Your task to perform on an android device: set an alarm Image 0: 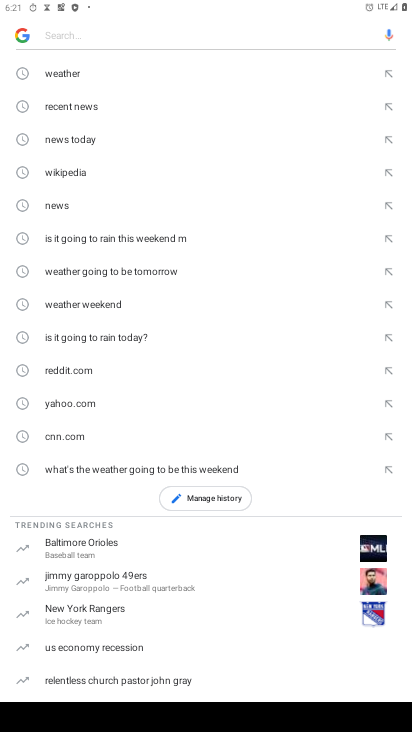
Step 0: press home button
Your task to perform on an android device: set an alarm Image 1: 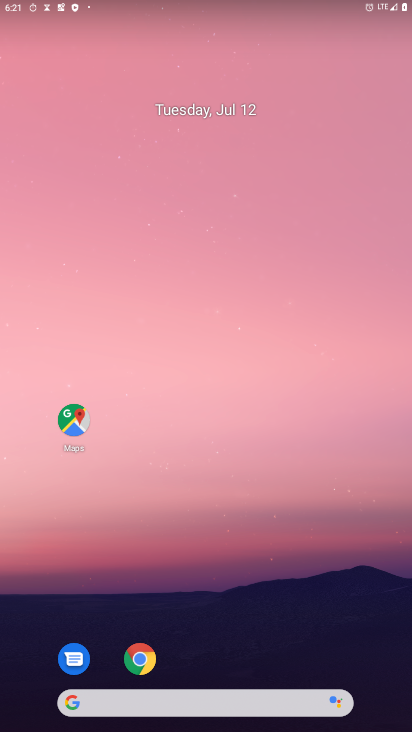
Step 1: drag from (162, 629) to (141, 334)
Your task to perform on an android device: set an alarm Image 2: 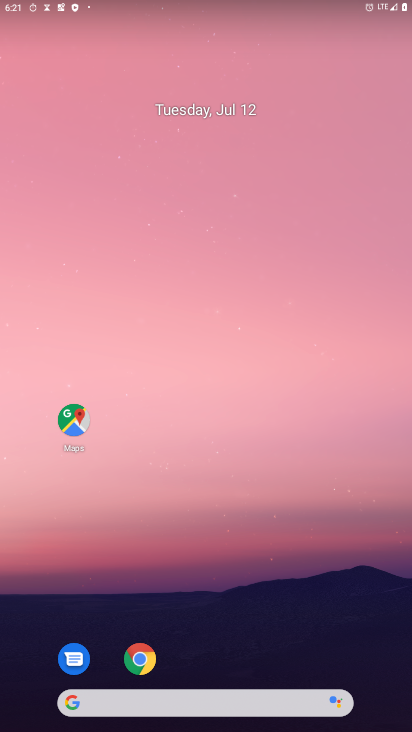
Step 2: drag from (181, 532) to (180, 66)
Your task to perform on an android device: set an alarm Image 3: 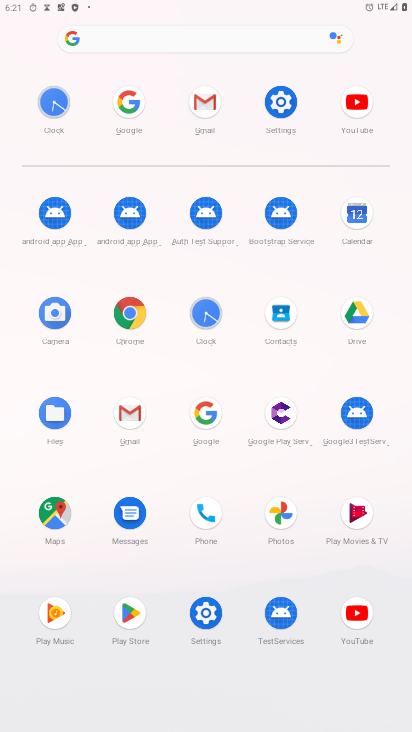
Step 3: click (285, 110)
Your task to perform on an android device: set an alarm Image 4: 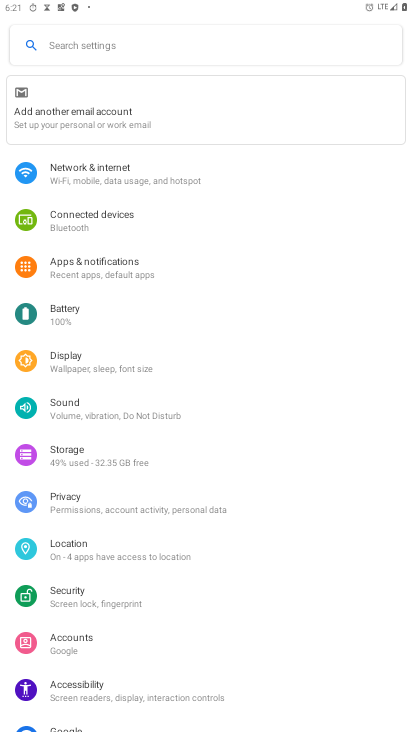
Step 4: press back button
Your task to perform on an android device: set an alarm Image 5: 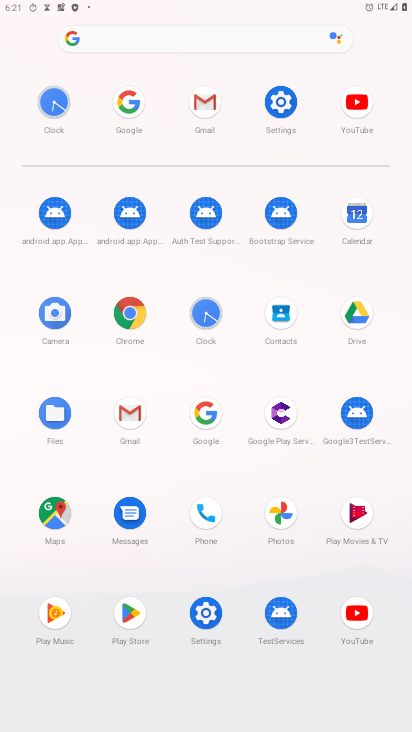
Step 5: click (196, 333)
Your task to perform on an android device: set an alarm Image 6: 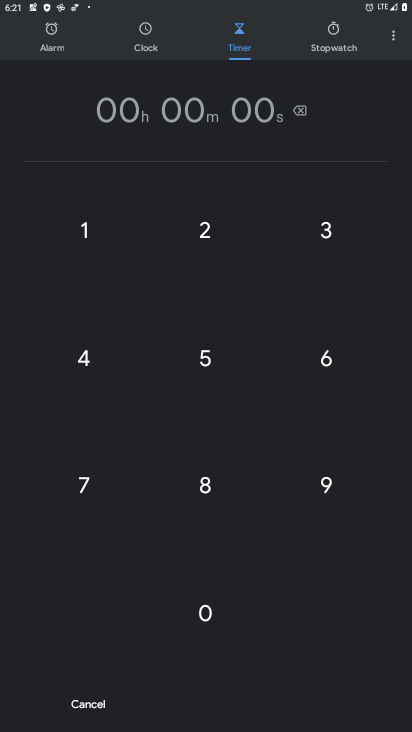
Step 6: click (44, 43)
Your task to perform on an android device: set an alarm Image 7: 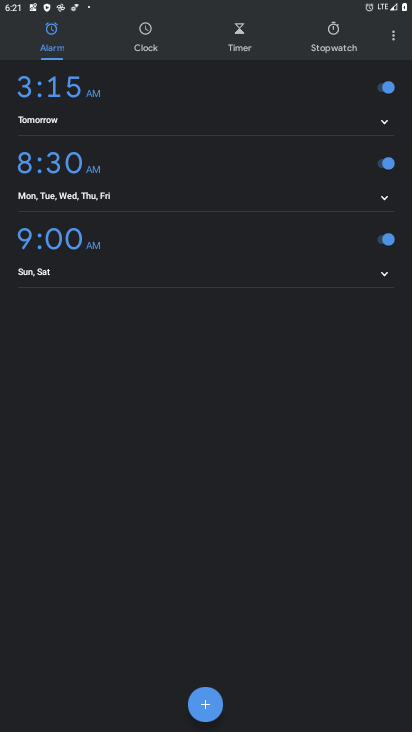
Step 7: click (200, 713)
Your task to perform on an android device: set an alarm Image 8: 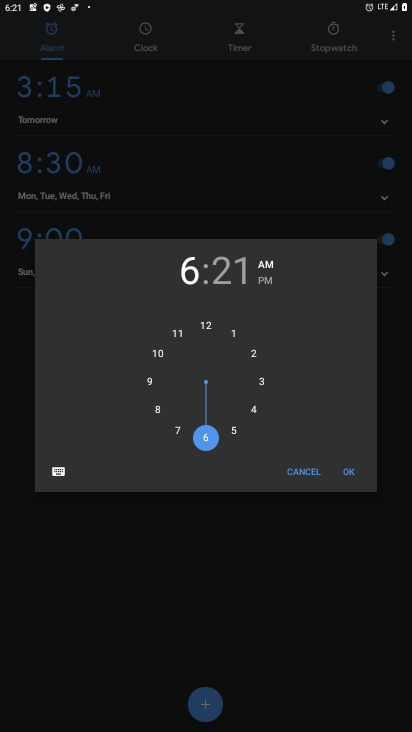
Step 8: click (206, 332)
Your task to perform on an android device: set an alarm Image 9: 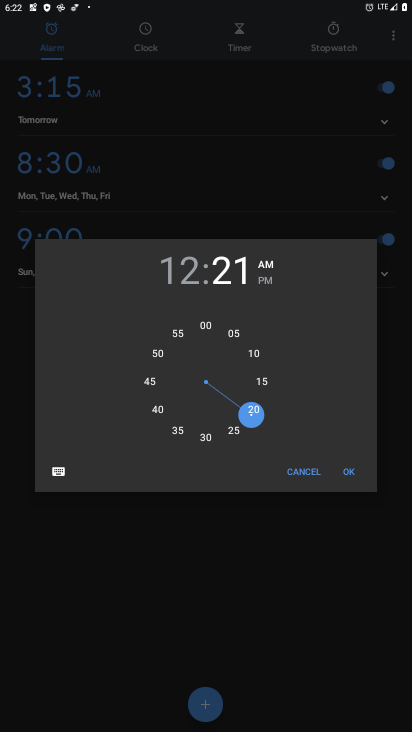
Step 9: click (277, 283)
Your task to perform on an android device: set an alarm Image 10: 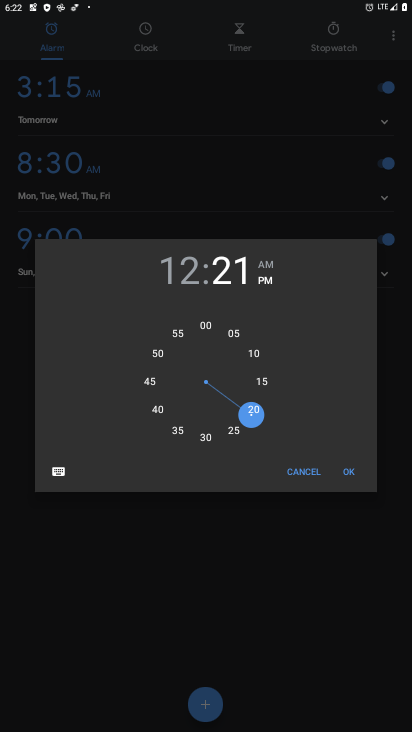
Step 10: click (351, 473)
Your task to perform on an android device: set an alarm Image 11: 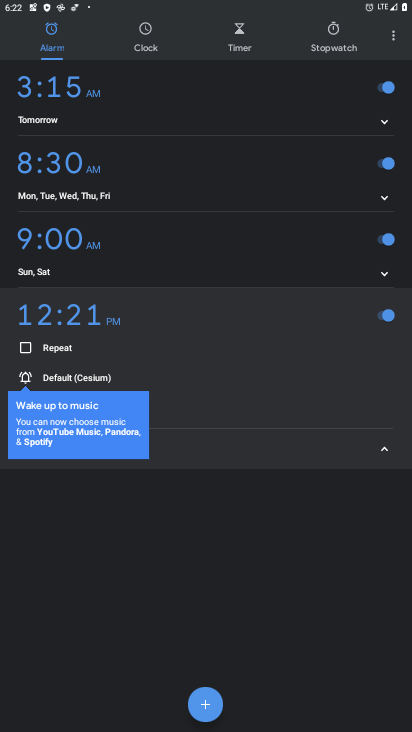
Step 11: task complete